Your task to perform on an android device: choose inbox layout in the gmail app Image 0: 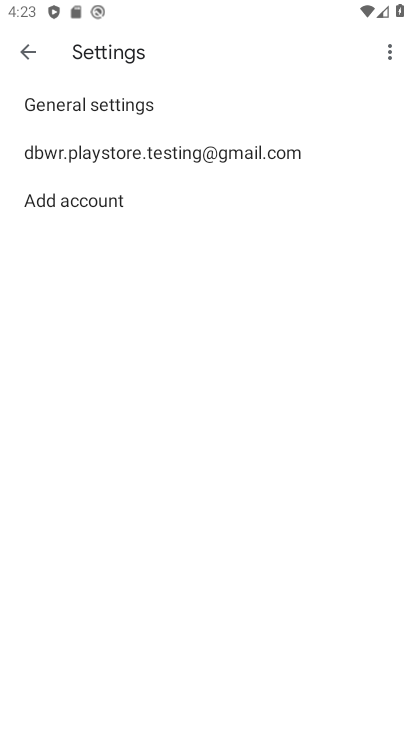
Step 0: press home button
Your task to perform on an android device: choose inbox layout in the gmail app Image 1: 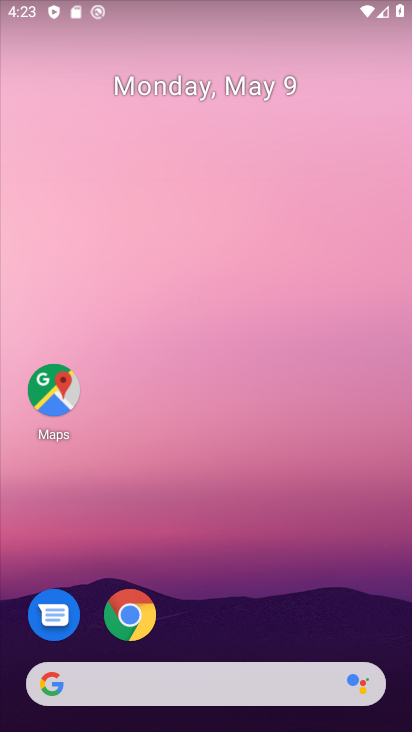
Step 1: drag from (200, 669) to (244, 357)
Your task to perform on an android device: choose inbox layout in the gmail app Image 2: 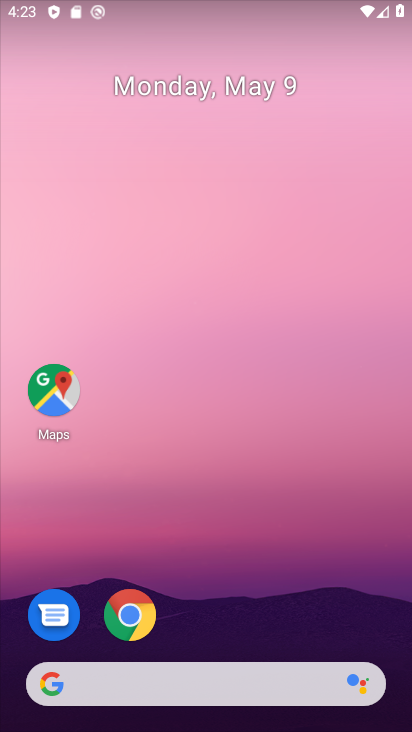
Step 2: drag from (239, 640) to (286, 206)
Your task to perform on an android device: choose inbox layout in the gmail app Image 3: 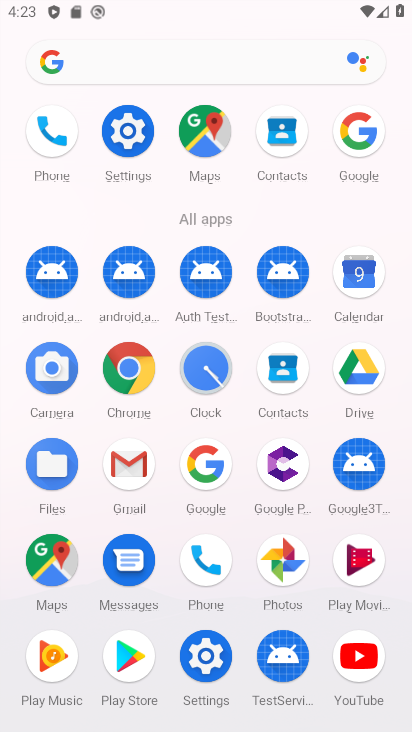
Step 3: click (124, 465)
Your task to perform on an android device: choose inbox layout in the gmail app Image 4: 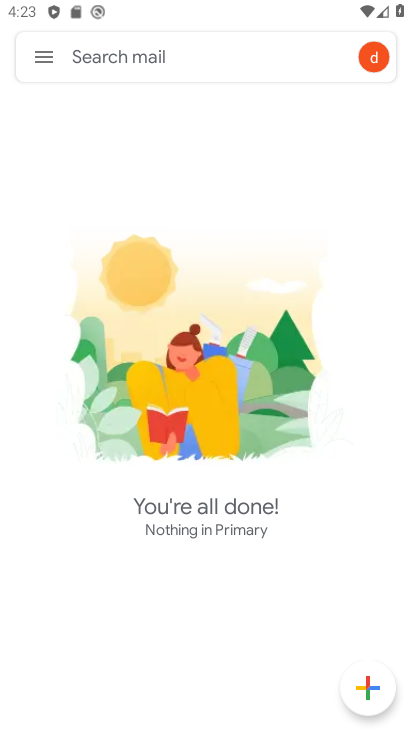
Step 4: click (43, 58)
Your task to perform on an android device: choose inbox layout in the gmail app Image 5: 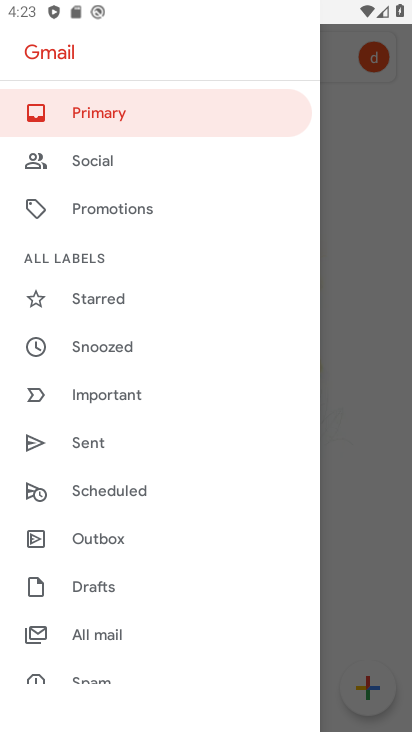
Step 5: drag from (149, 475) to (179, 264)
Your task to perform on an android device: choose inbox layout in the gmail app Image 6: 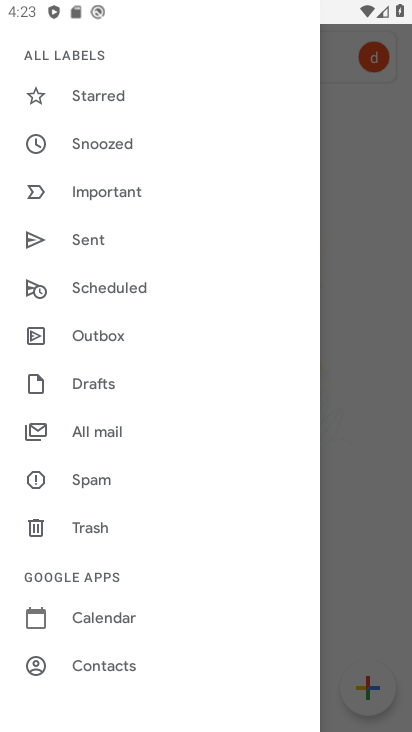
Step 6: drag from (84, 670) to (176, 324)
Your task to perform on an android device: choose inbox layout in the gmail app Image 7: 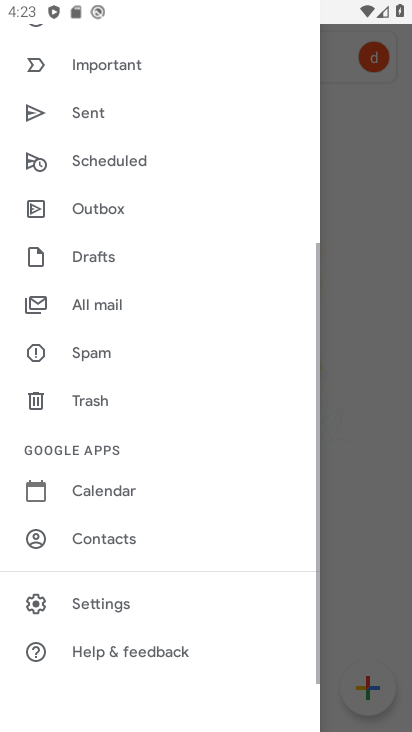
Step 7: click (100, 601)
Your task to perform on an android device: choose inbox layout in the gmail app Image 8: 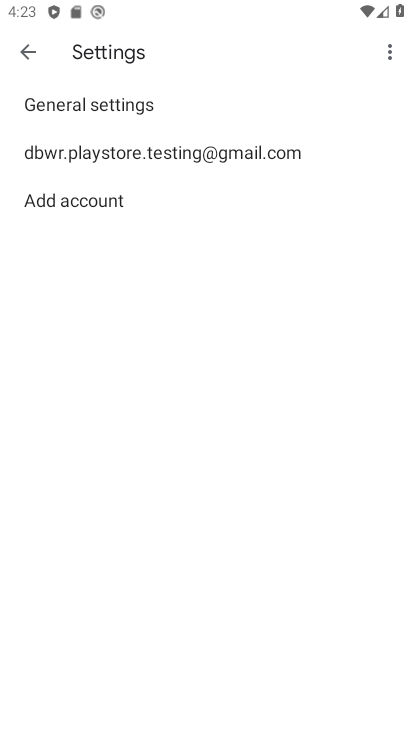
Step 8: click (142, 154)
Your task to perform on an android device: choose inbox layout in the gmail app Image 9: 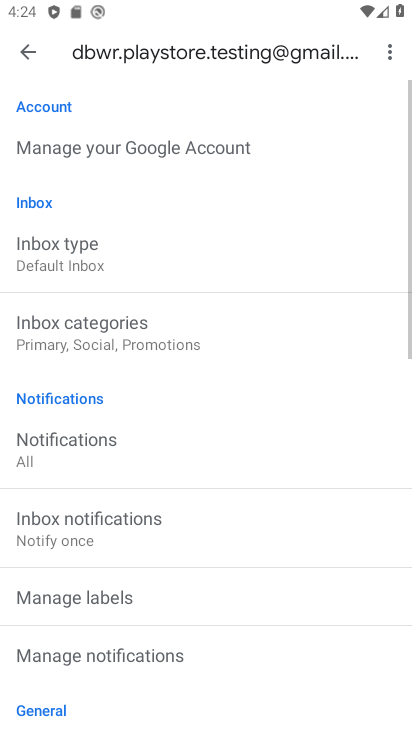
Step 9: click (84, 247)
Your task to perform on an android device: choose inbox layout in the gmail app Image 10: 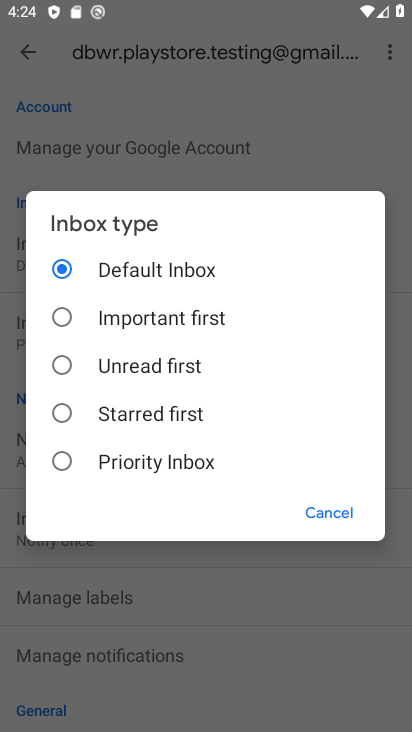
Step 10: click (129, 460)
Your task to perform on an android device: choose inbox layout in the gmail app Image 11: 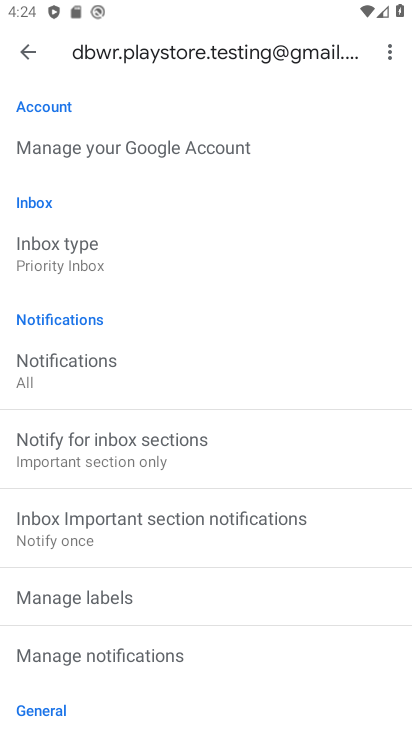
Step 11: task complete